Your task to perform on an android device: Open privacy settings Image 0: 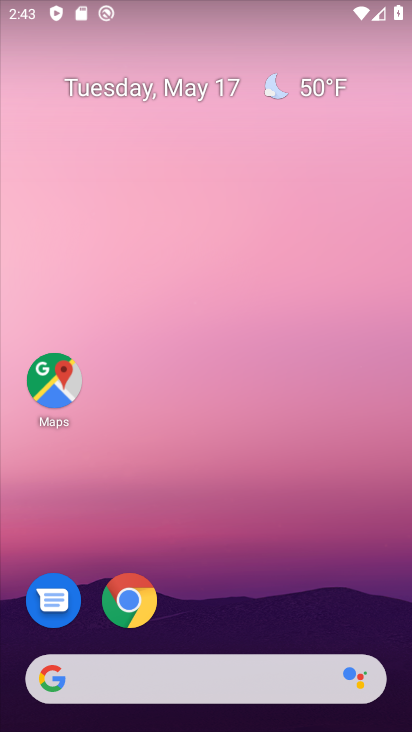
Step 0: drag from (243, 609) to (226, 140)
Your task to perform on an android device: Open privacy settings Image 1: 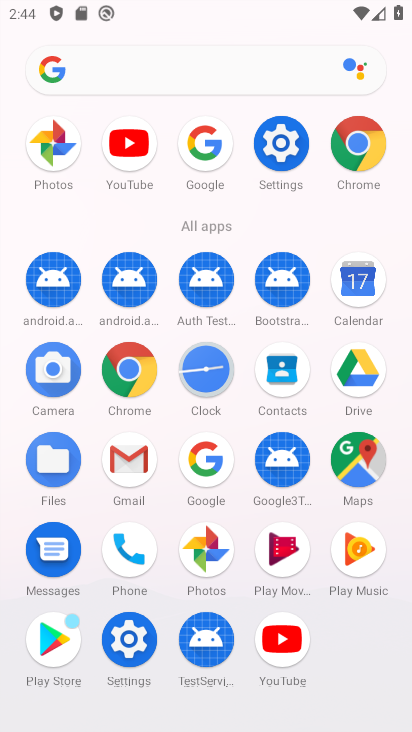
Step 1: click (284, 167)
Your task to perform on an android device: Open privacy settings Image 2: 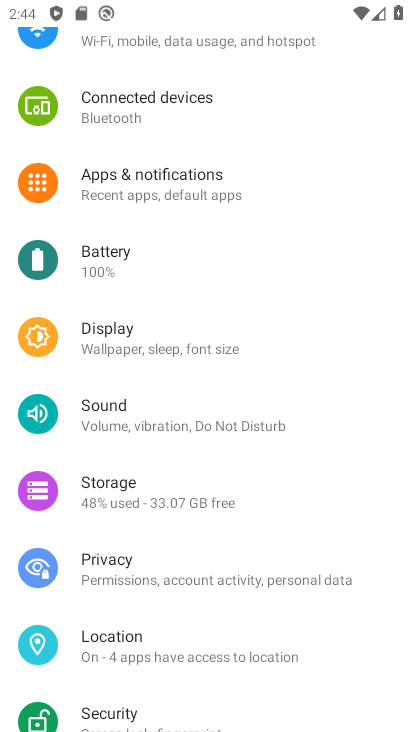
Step 2: click (244, 580)
Your task to perform on an android device: Open privacy settings Image 3: 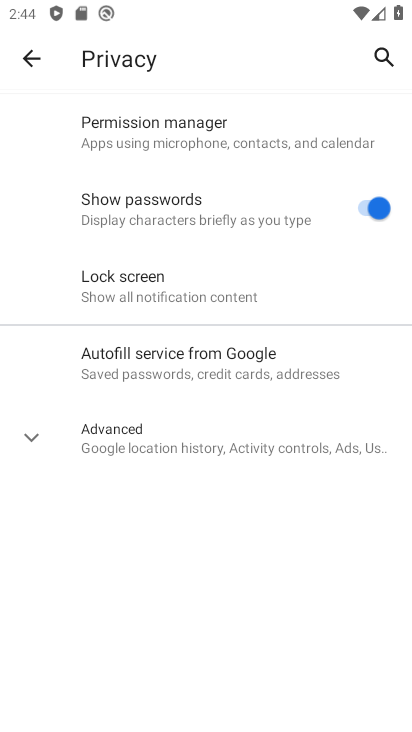
Step 3: task complete